Your task to perform on an android device: What's the latest video from GameSpot? Image 0: 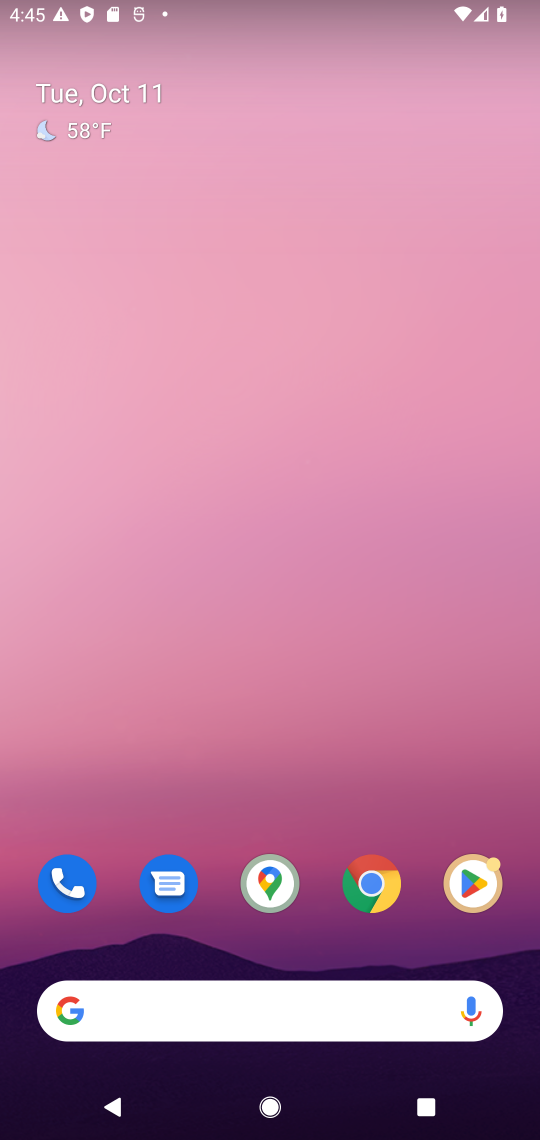
Step 0: drag from (300, 945) to (341, 298)
Your task to perform on an android device: What's the latest video from GameSpot? Image 1: 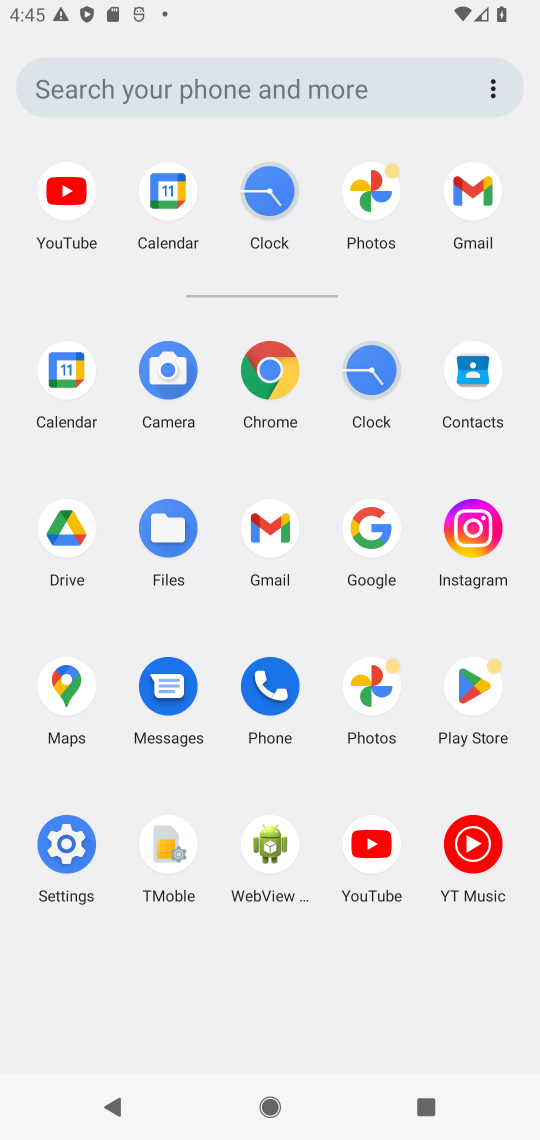
Step 1: click (363, 834)
Your task to perform on an android device: What's the latest video from GameSpot? Image 2: 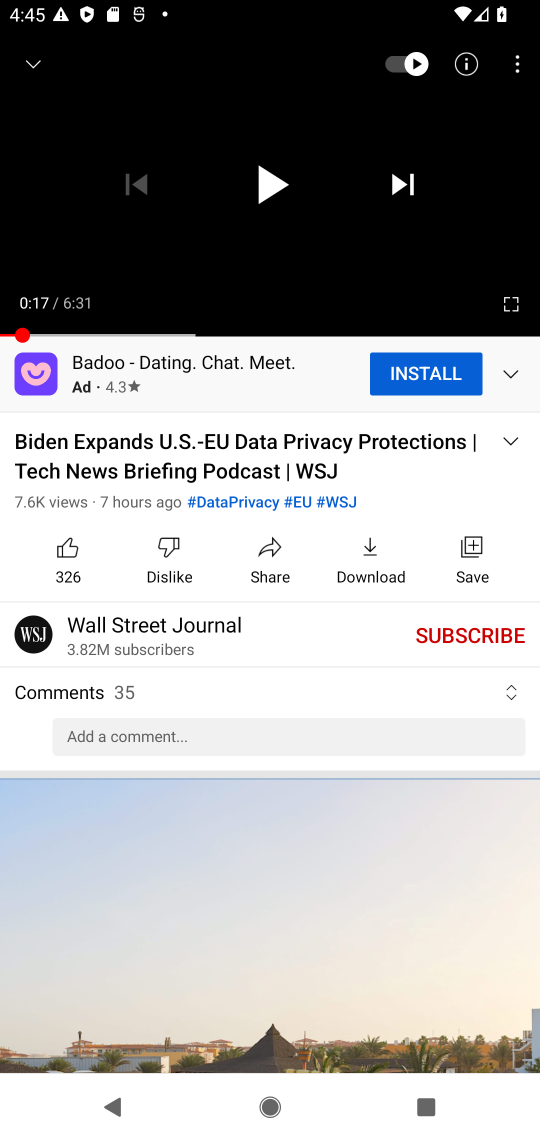
Step 2: drag from (339, 212) to (392, 825)
Your task to perform on an android device: What's the latest video from GameSpot? Image 3: 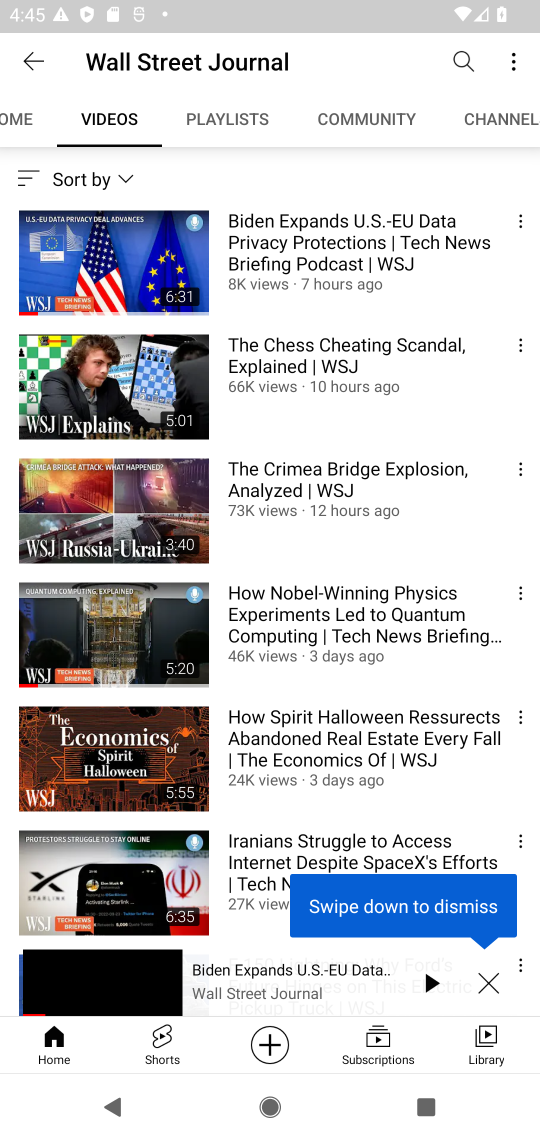
Step 3: click (472, 42)
Your task to perform on an android device: What's the latest video from GameSpot? Image 4: 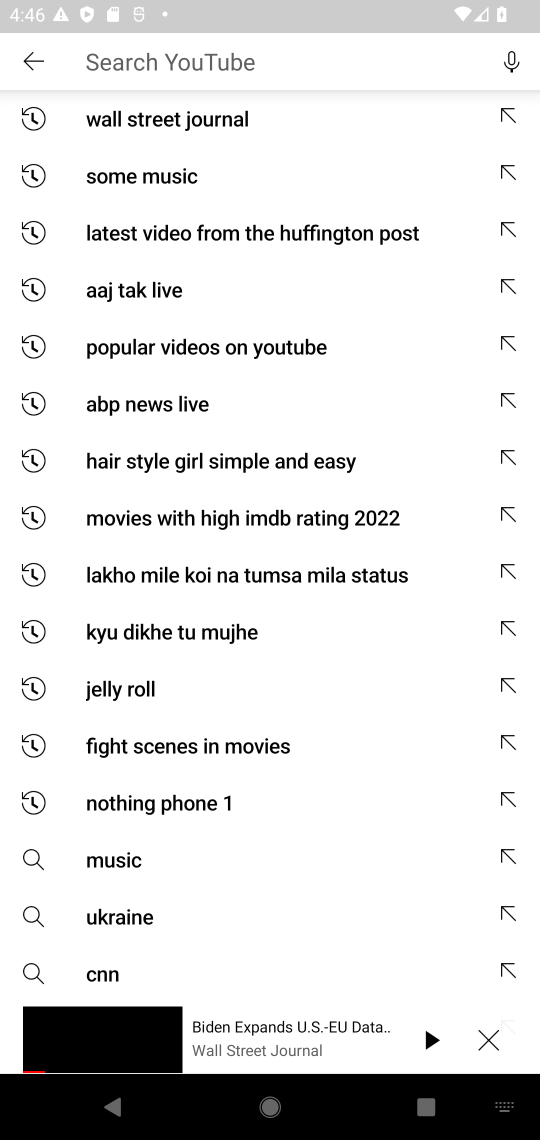
Step 4: type "GameSpot"
Your task to perform on an android device: What's the latest video from GameSpot? Image 5: 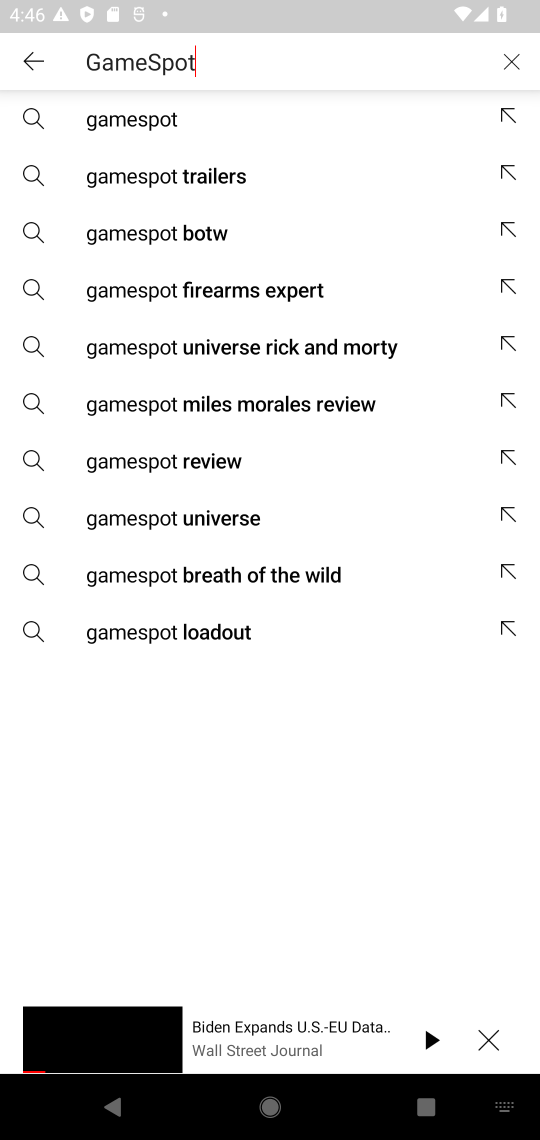
Step 5: press enter
Your task to perform on an android device: What's the latest video from GameSpot? Image 6: 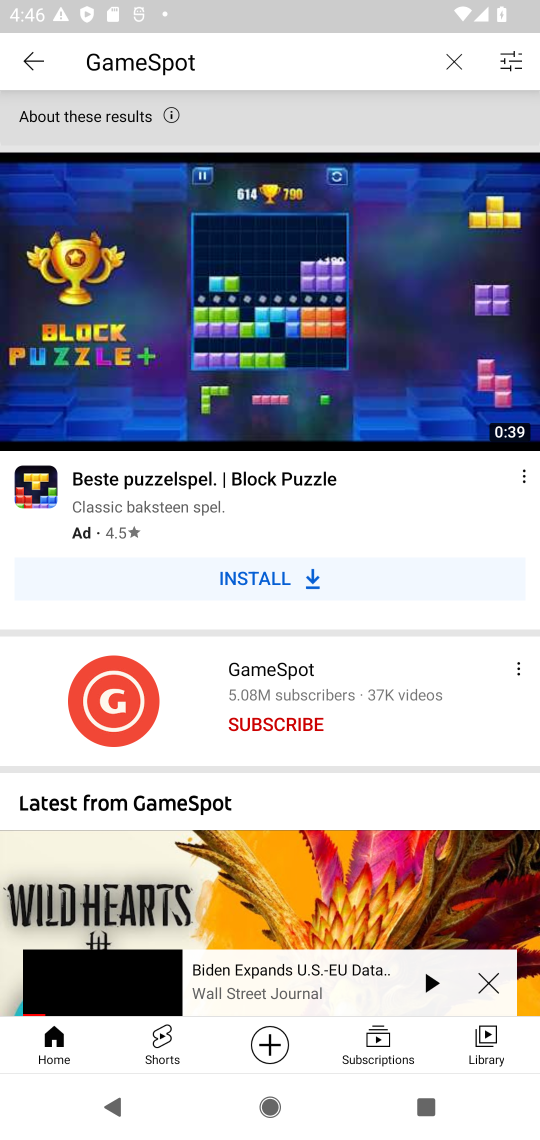
Step 6: click (255, 664)
Your task to perform on an android device: What's the latest video from GameSpot? Image 7: 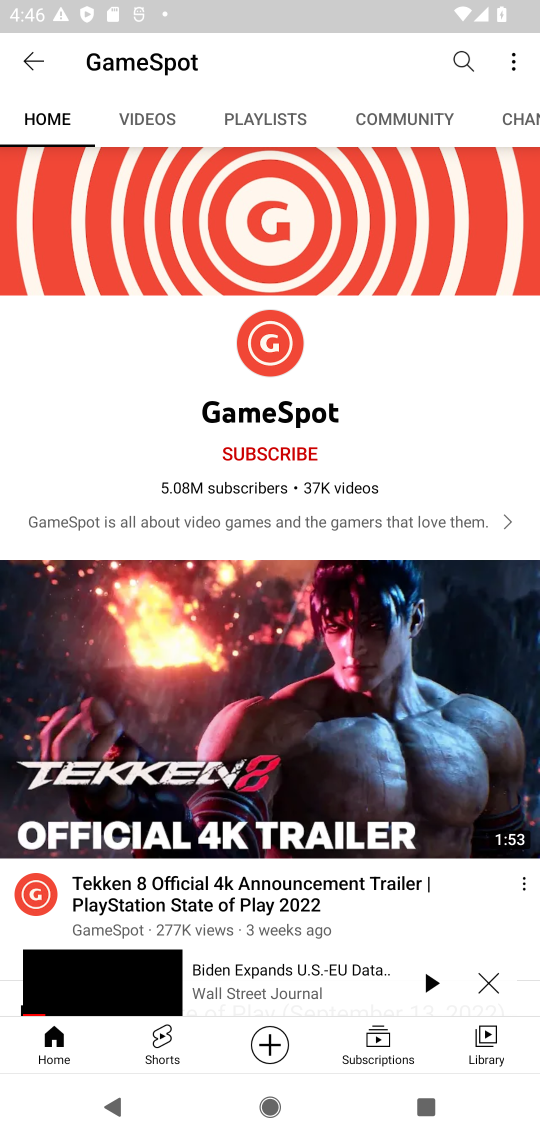
Step 7: click (156, 115)
Your task to perform on an android device: What's the latest video from GameSpot? Image 8: 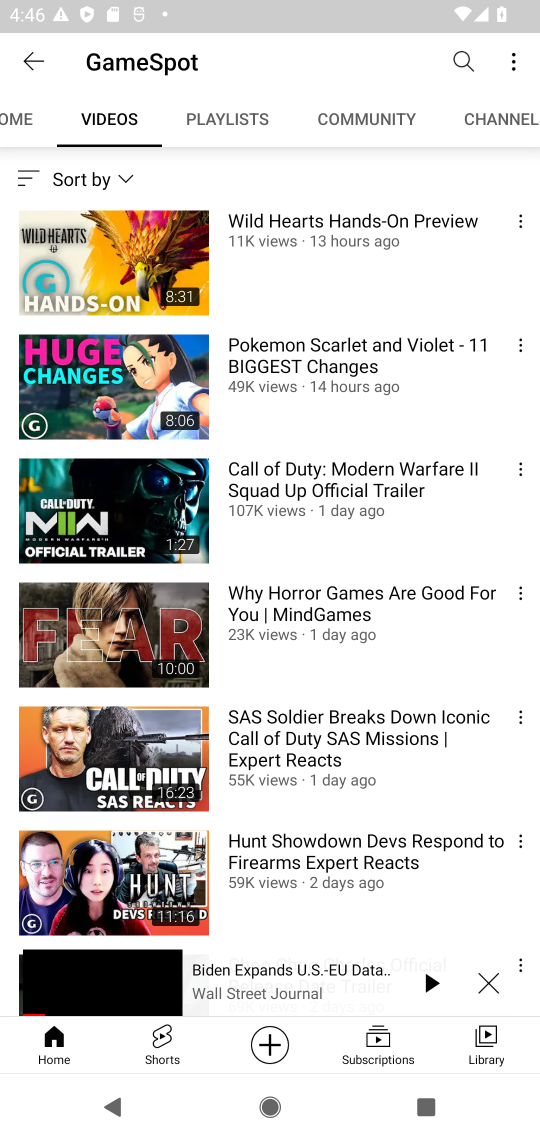
Step 8: click (115, 234)
Your task to perform on an android device: What's the latest video from GameSpot? Image 9: 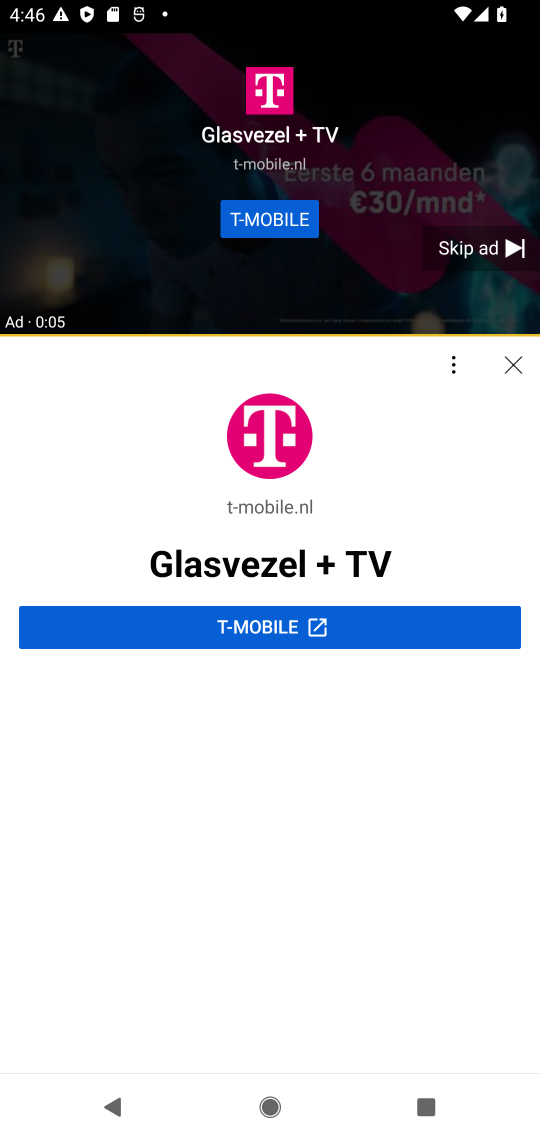
Step 9: click (463, 268)
Your task to perform on an android device: What's the latest video from GameSpot? Image 10: 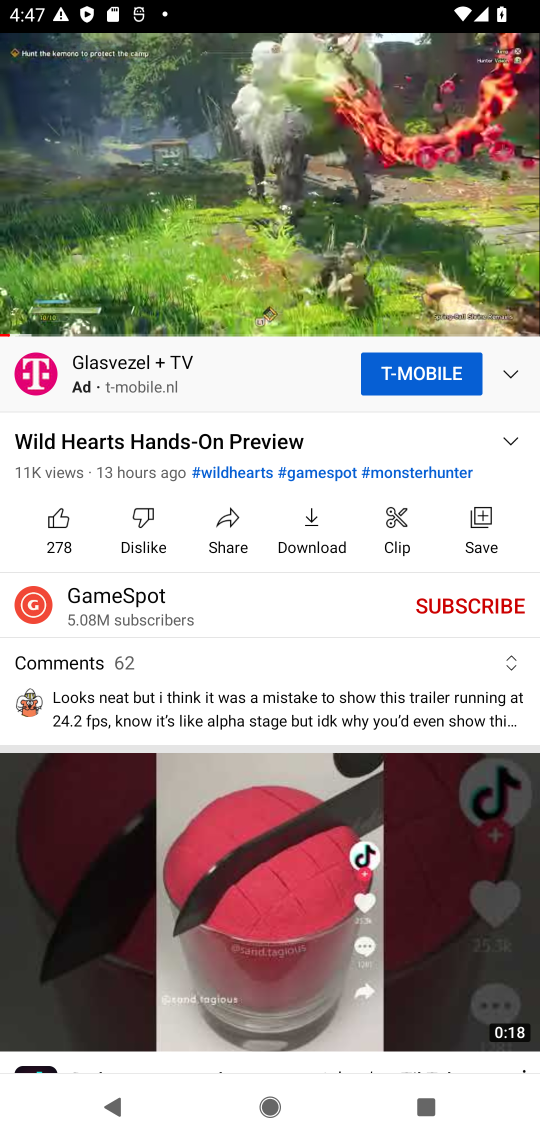
Step 10: task complete